Your task to perform on an android device: turn on showing notifications on the lock screen Image 0: 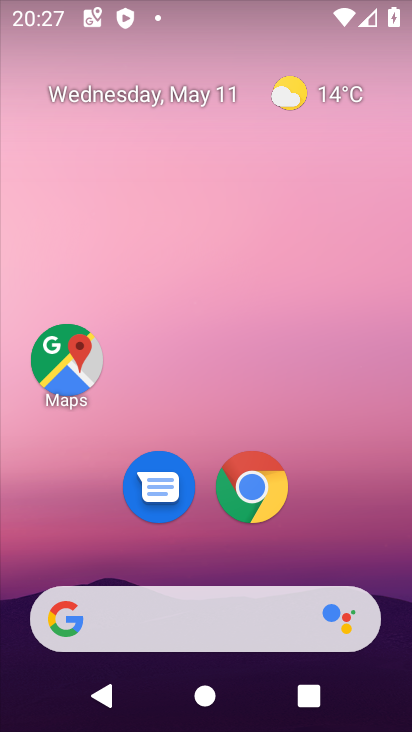
Step 0: drag from (170, 580) to (170, 147)
Your task to perform on an android device: turn on showing notifications on the lock screen Image 1: 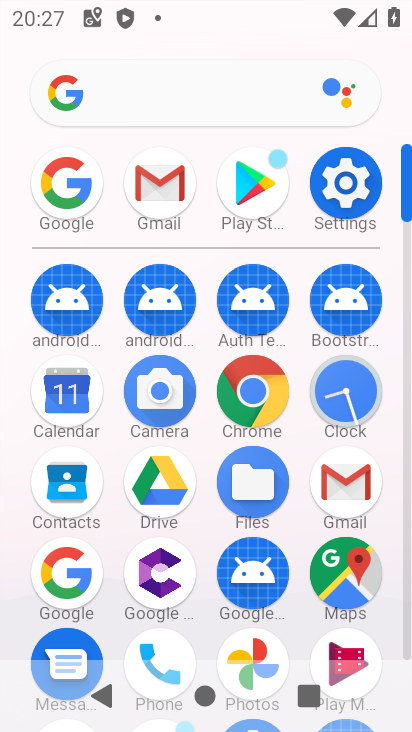
Step 1: click (342, 199)
Your task to perform on an android device: turn on showing notifications on the lock screen Image 2: 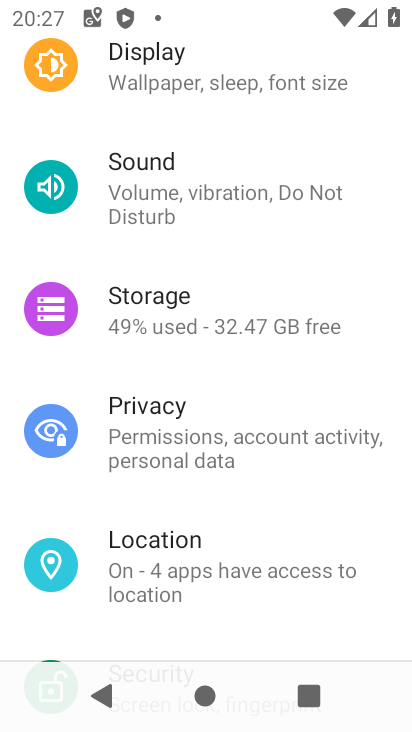
Step 2: click (173, 423)
Your task to perform on an android device: turn on showing notifications on the lock screen Image 3: 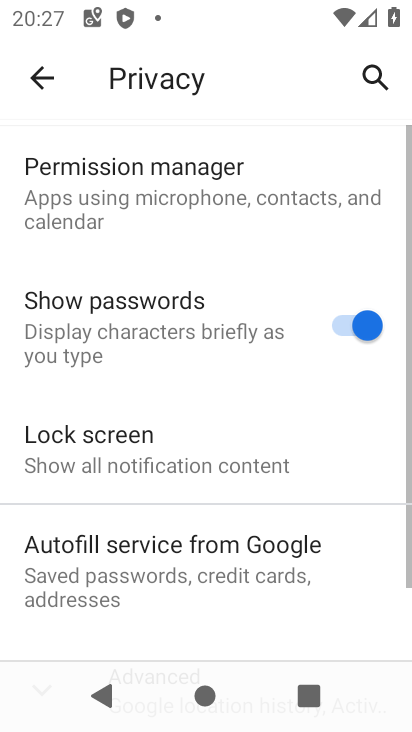
Step 3: click (128, 445)
Your task to perform on an android device: turn on showing notifications on the lock screen Image 4: 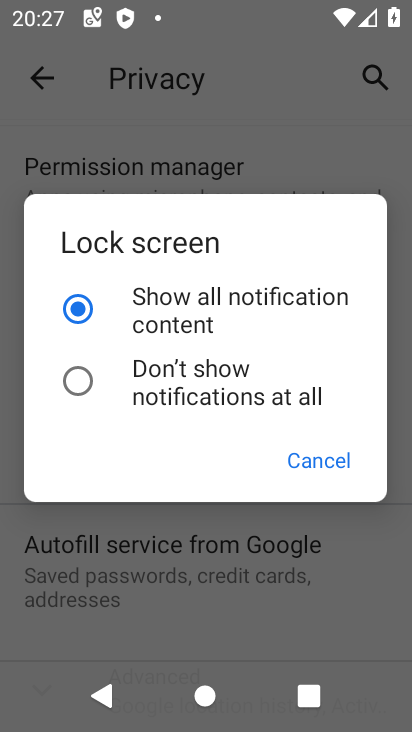
Step 4: task complete